Your task to perform on an android device: Open Reddit.com Image 0: 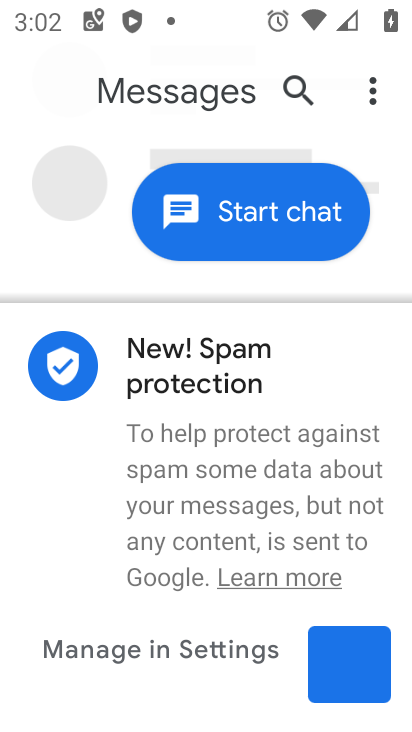
Step 0: press home button
Your task to perform on an android device: Open Reddit.com Image 1: 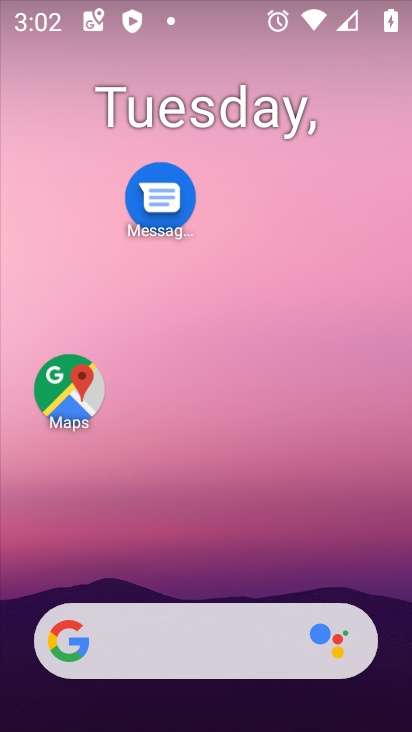
Step 1: drag from (222, 563) to (222, 211)
Your task to perform on an android device: Open Reddit.com Image 2: 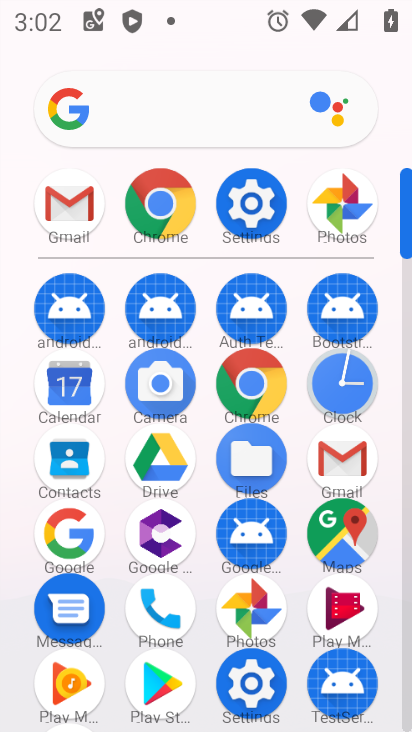
Step 2: click (173, 203)
Your task to perform on an android device: Open Reddit.com Image 3: 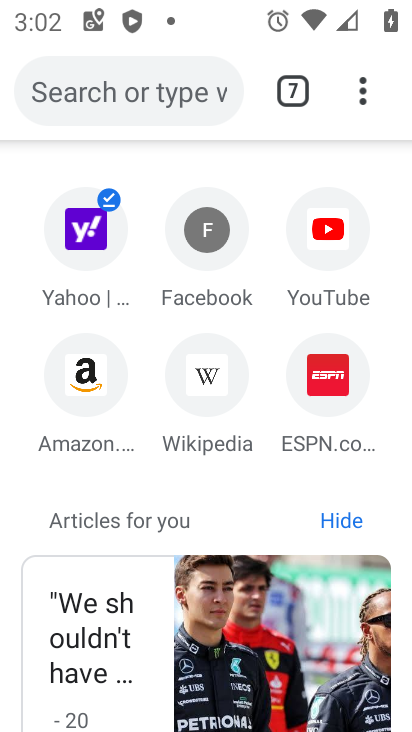
Step 3: click (181, 97)
Your task to perform on an android device: Open Reddit.com Image 4: 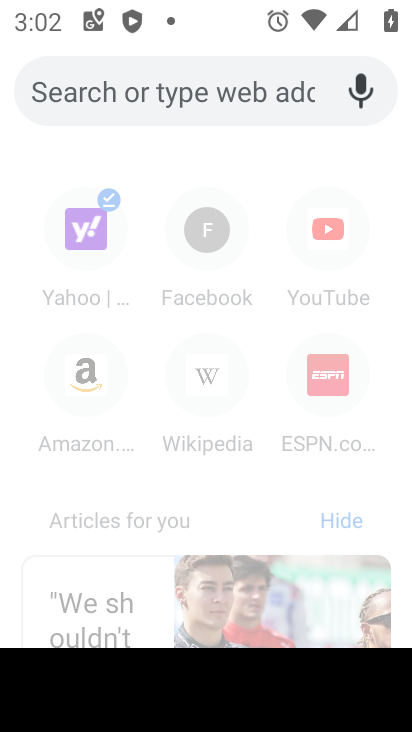
Step 4: type "Reddit.com"
Your task to perform on an android device: Open Reddit.com Image 5: 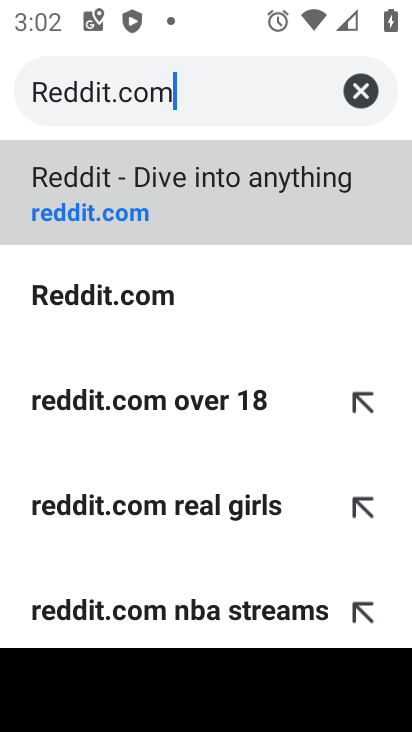
Step 5: click (97, 288)
Your task to perform on an android device: Open Reddit.com Image 6: 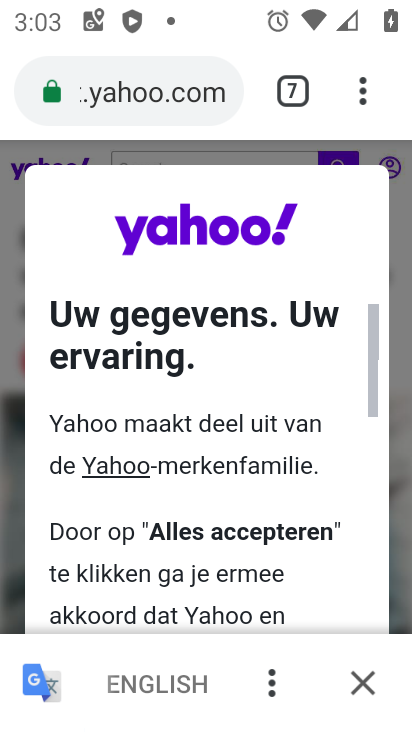
Step 6: task complete